Your task to perform on an android device: Open the stopwatch Image 0: 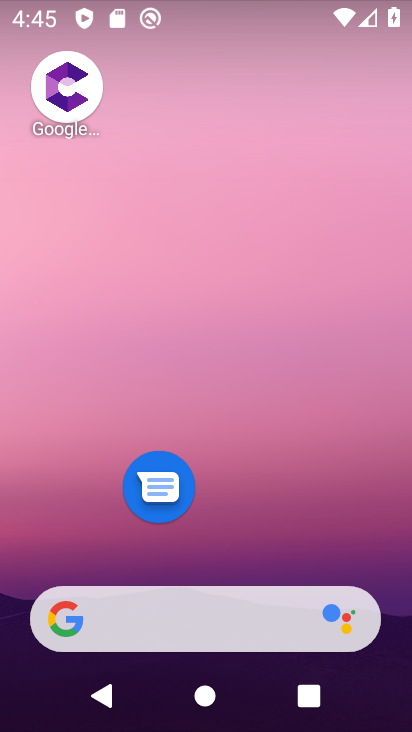
Step 0: drag from (205, 674) to (202, 168)
Your task to perform on an android device: Open the stopwatch Image 1: 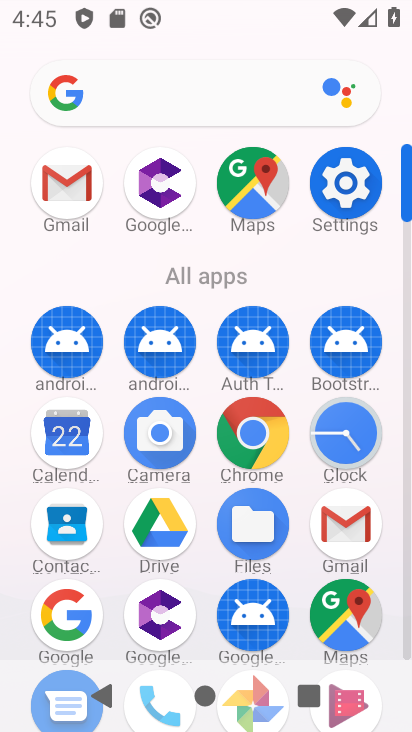
Step 1: click (355, 435)
Your task to perform on an android device: Open the stopwatch Image 2: 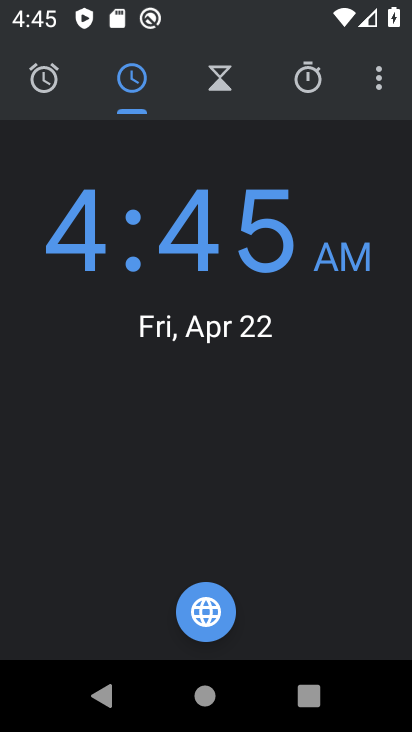
Step 2: click (309, 74)
Your task to perform on an android device: Open the stopwatch Image 3: 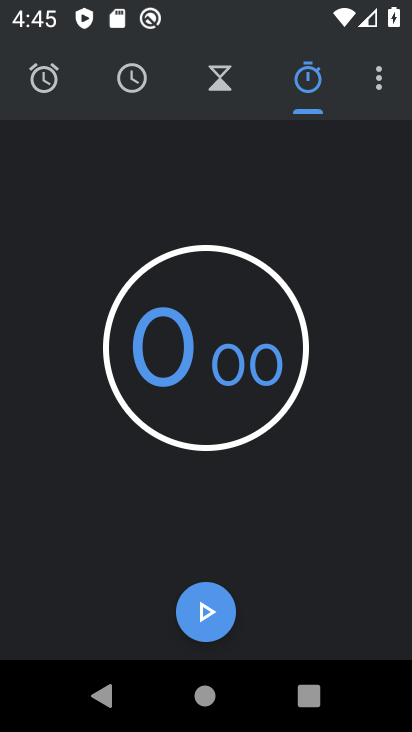
Step 3: click (205, 601)
Your task to perform on an android device: Open the stopwatch Image 4: 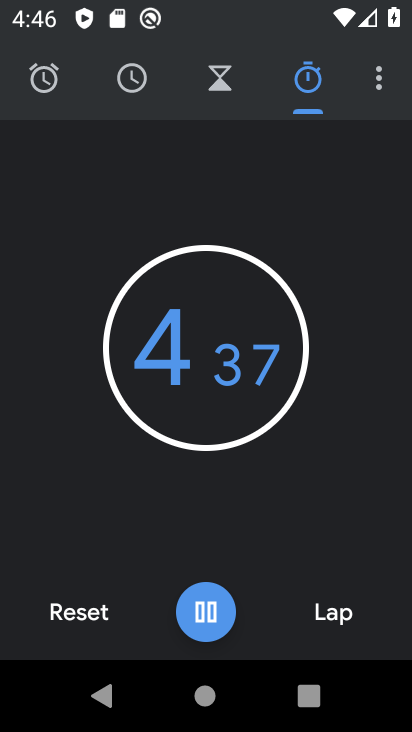
Step 4: type "77"
Your task to perform on an android device: Open the stopwatch Image 5: 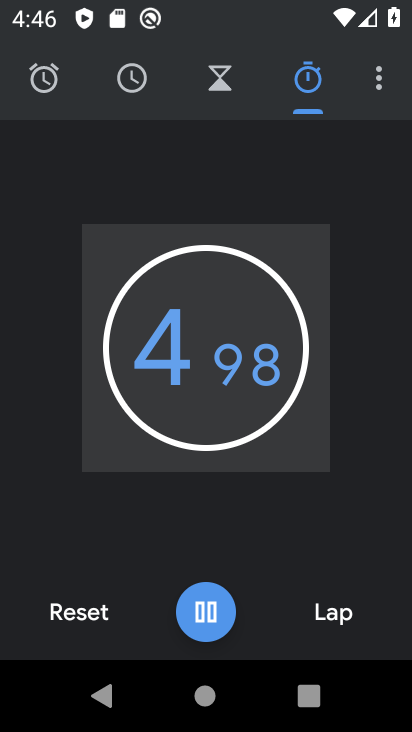
Step 5: type ""
Your task to perform on an android device: Open the stopwatch Image 6: 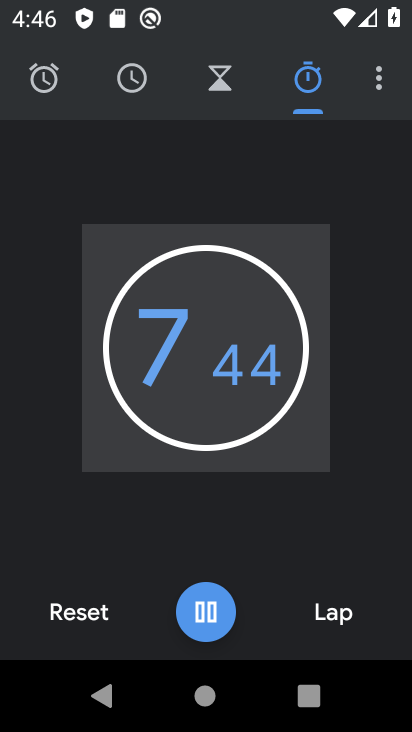
Step 6: task complete